Your task to perform on an android device: turn off notifications settings in the gmail app Image 0: 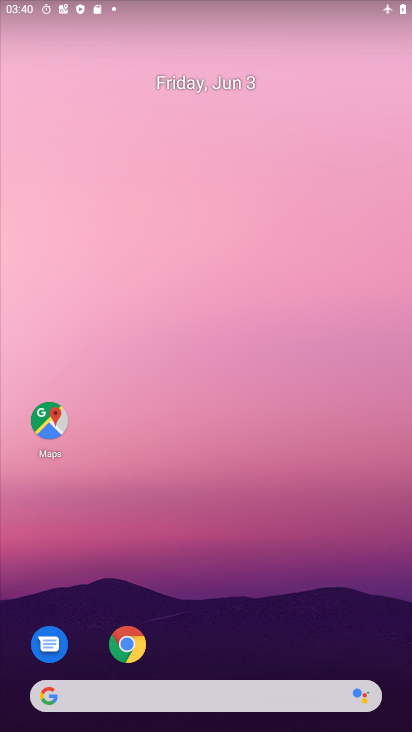
Step 0: drag from (192, 615) to (197, 180)
Your task to perform on an android device: turn off notifications settings in the gmail app Image 1: 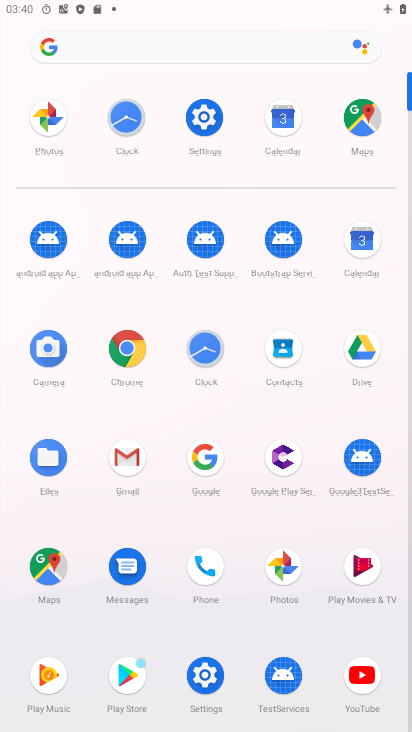
Step 1: click (127, 465)
Your task to perform on an android device: turn off notifications settings in the gmail app Image 2: 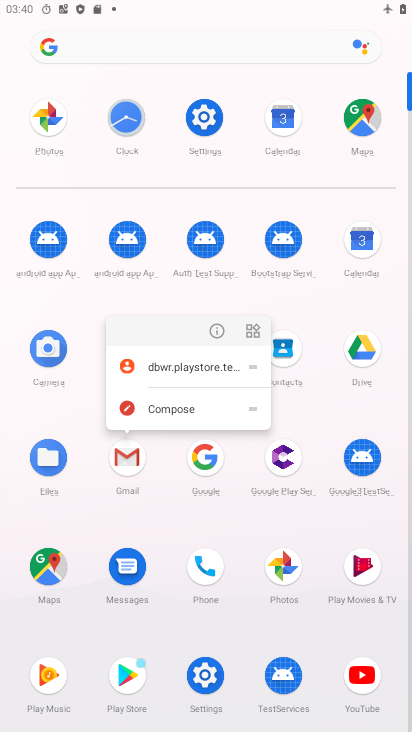
Step 2: click (127, 465)
Your task to perform on an android device: turn off notifications settings in the gmail app Image 3: 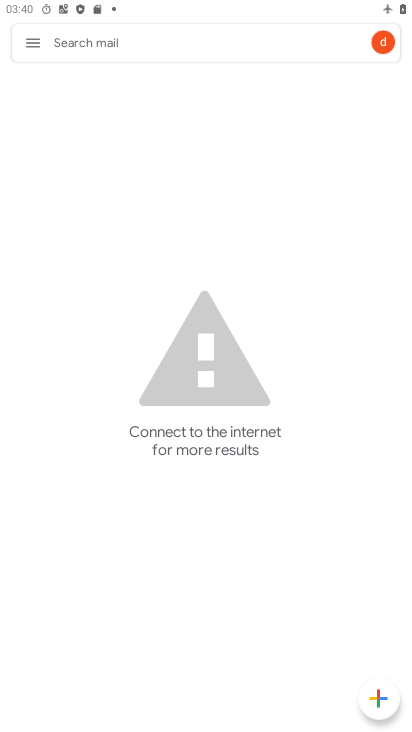
Step 3: click (27, 40)
Your task to perform on an android device: turn off notifications settings in the gmail app Image 4: 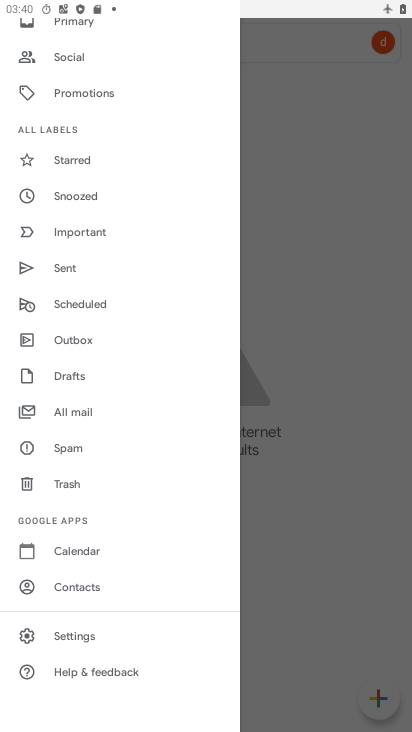
Step 4: click (84, 642)
Your task to perform on an android device: turn off notifications settings in the gmail app Image 5: 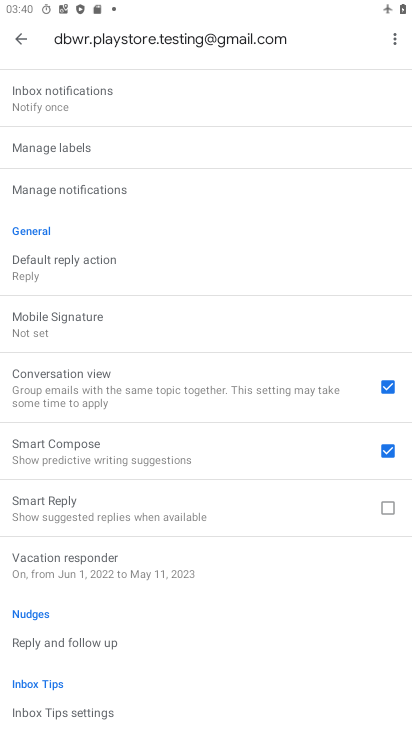
Step 5: drag from (92, 655) to (104, 458)
Your task to perform on an android device: turn off notifications settings in the gmail app Image 6: 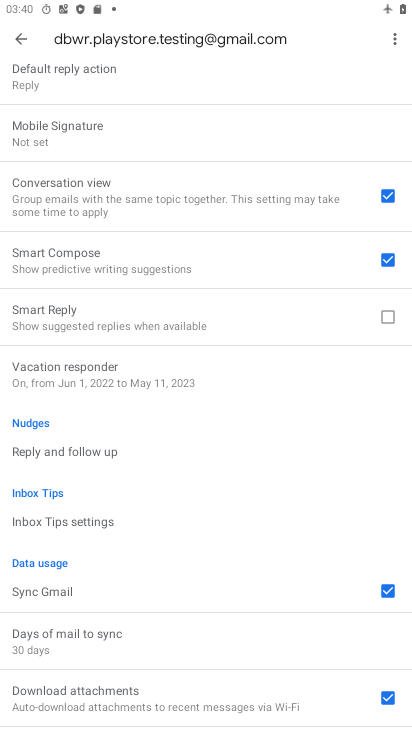
Step 6: drag from (116, 122) to (116, 355)
Your task to perform on an android device: turn off notifications settings in the gmail app Image 7: 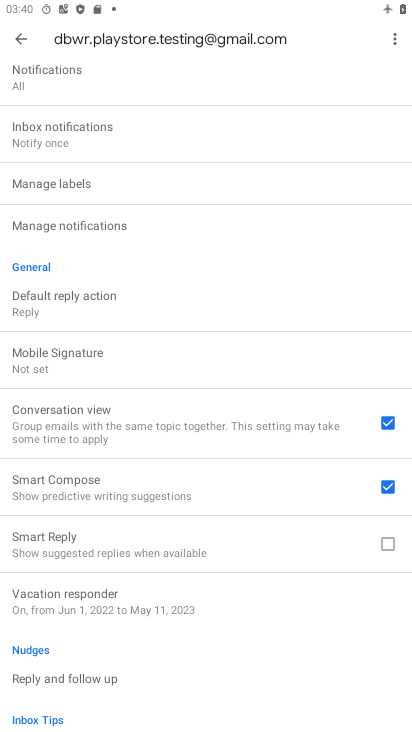
Step 7: click (120, 231)
Your task to perform on an android device: turn off notifications settings in the gmail app Image 8: 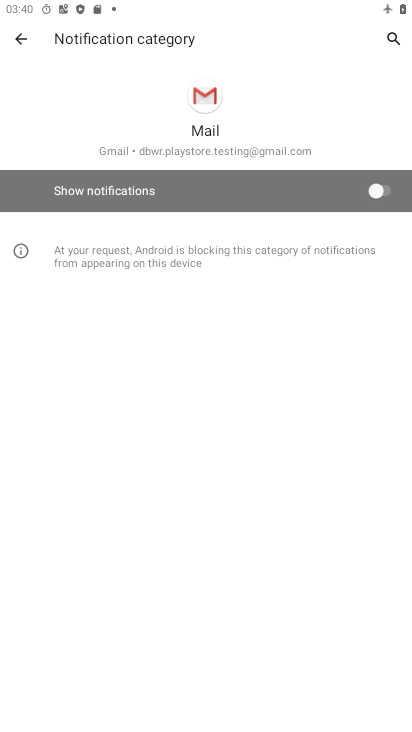
Step 8: task complete